Your task to perform on an android device: Open settings Image 0: 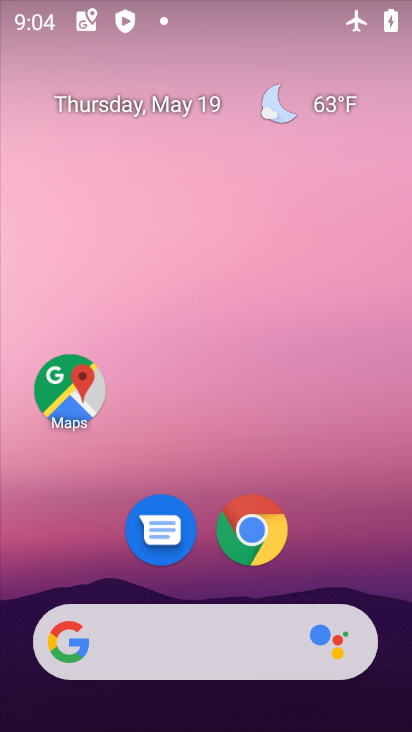
Step 0: drag from (316, 585) to (349, 282)
Your task to perform on an android device: Open settings Image 1: 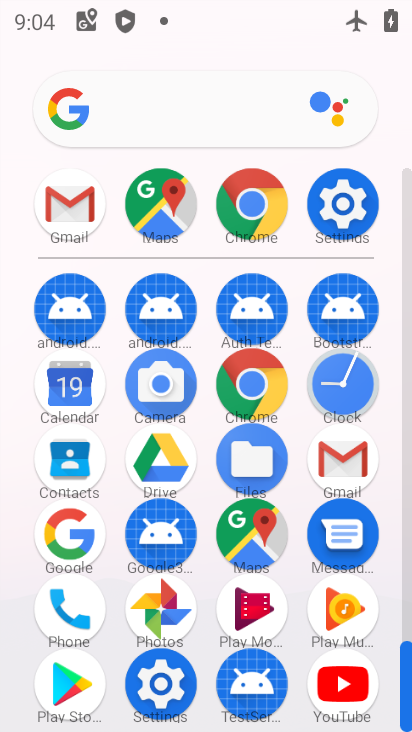
Step 1: click (348, 226)
Your task to perform on an android device: Open settings Image 2: 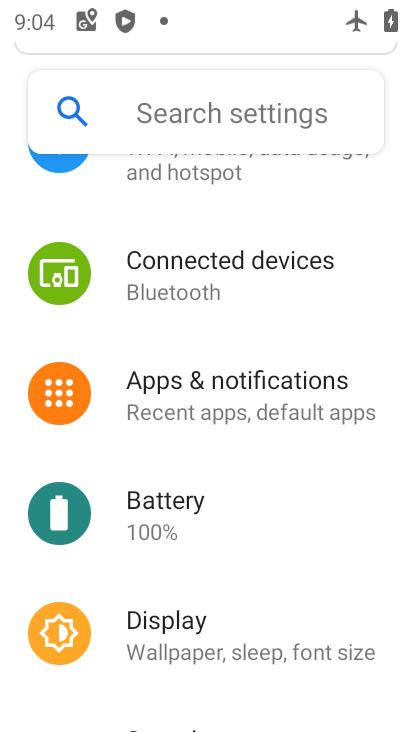
Step 2: task complete